Your task to perform on an android device: uninstall "Instagram" Image 0: 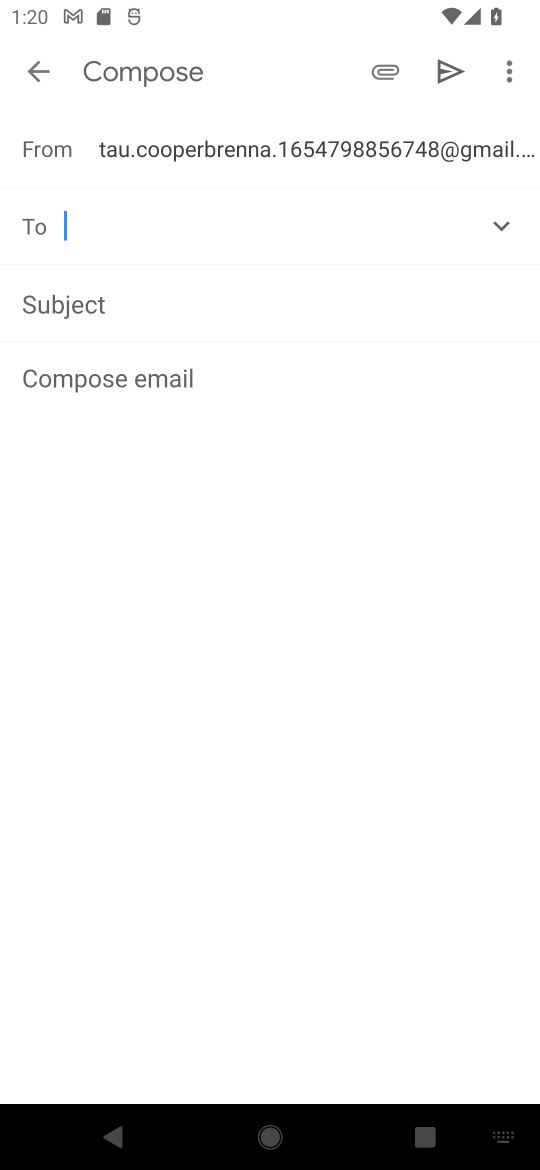
Step 0: press home button
Your task to perform on an android device: uninstall "Instagram" Image 1: 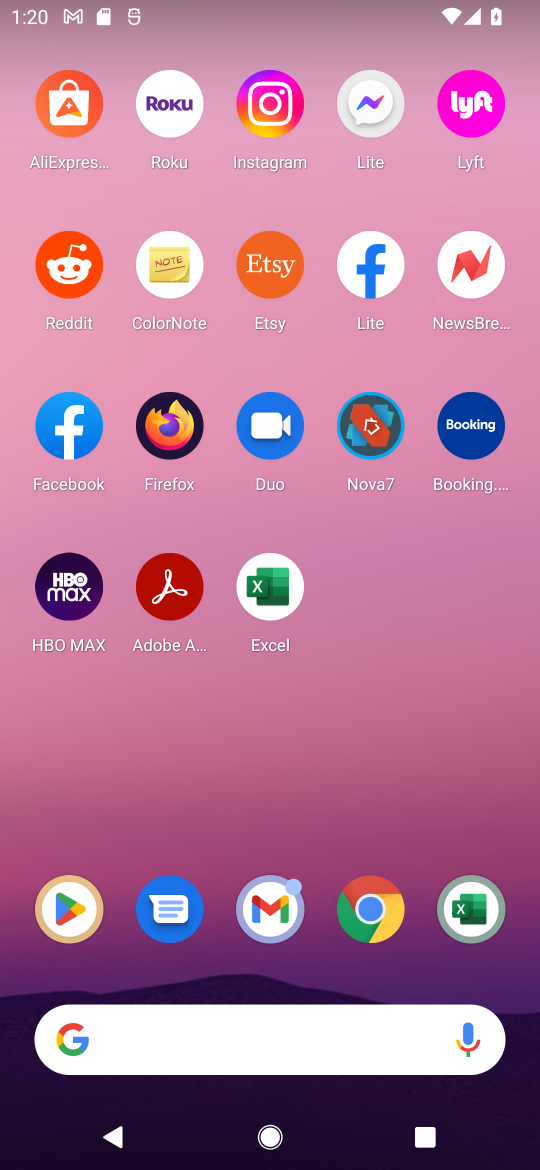
Step 1: click (59, 909)
Your task to perform on an android device: uninstall "Instagram" Image 2: 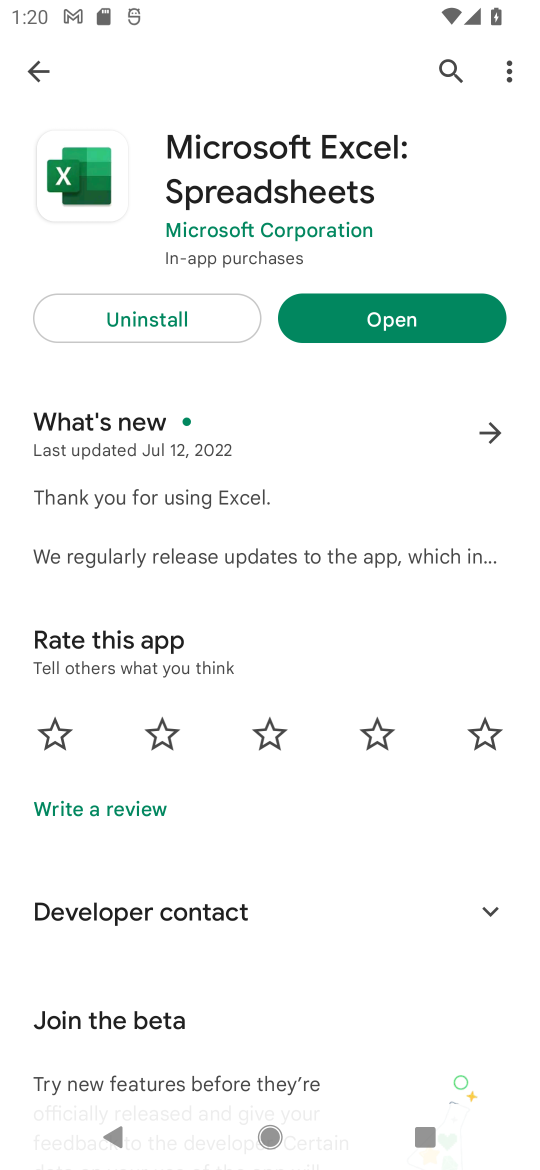
Step 2: click (454, 67)
Your task to perform on an android device: uninstall "Instagram" Image 3: 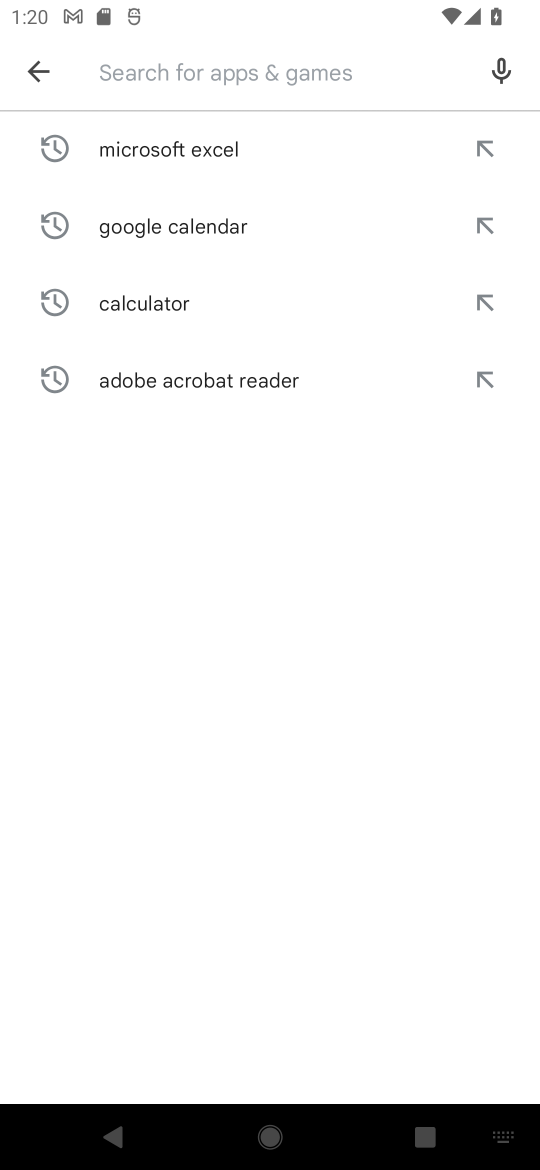
Step 3: type "Instagram"
Your task to perform on an android device: uninstall "Instagram" Image 4: 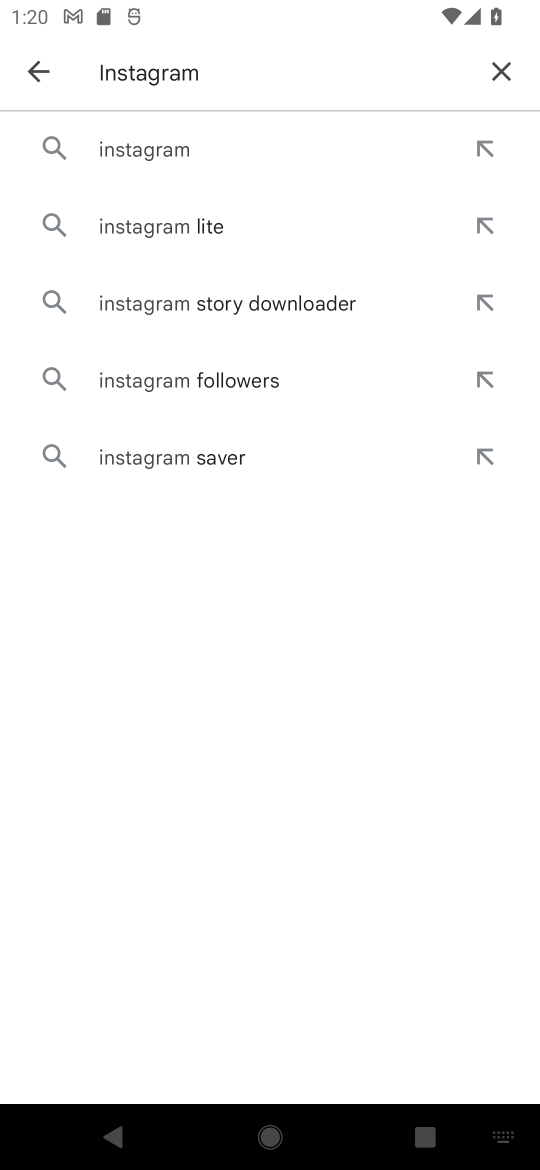
Step 4: click (134, 148)
Your task to perform on an android device: uninstall "Instagram" Image 5: 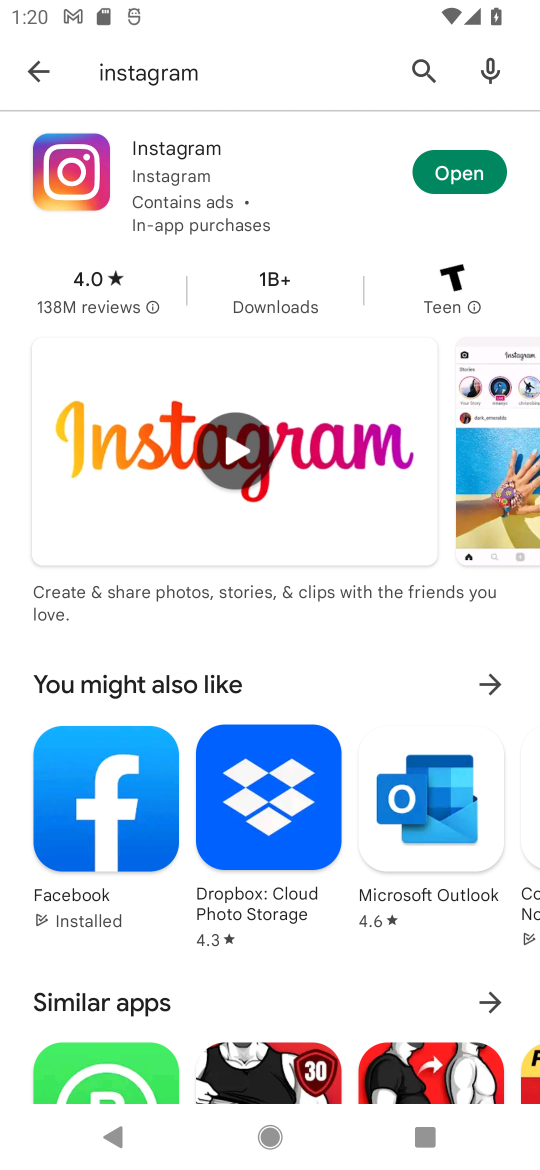
Step 5: click (173, 163)
Your task to perform on an android device: uninstall "Instagram" Image 6: 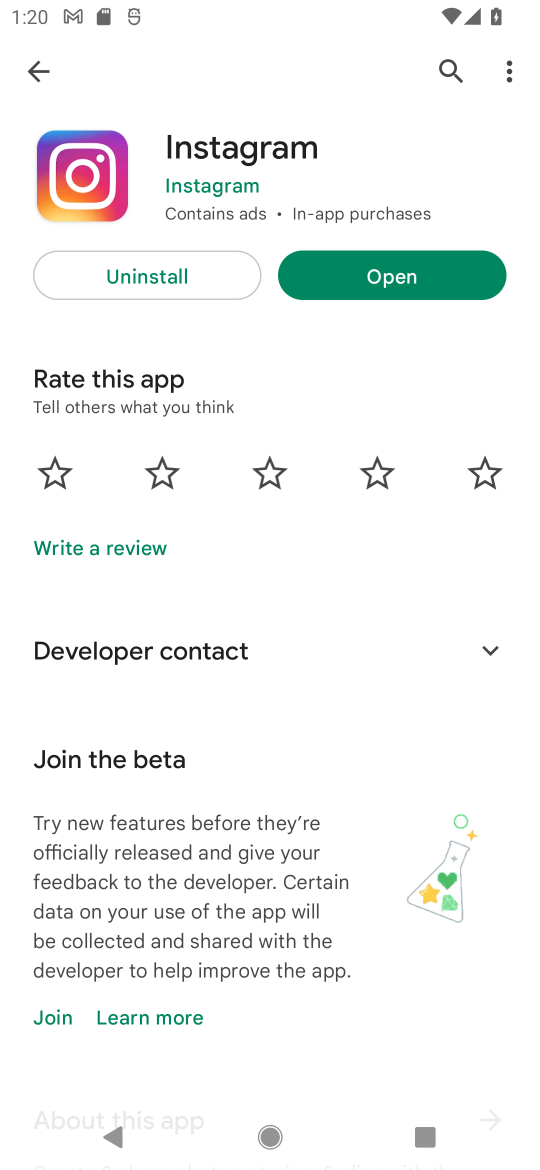
Step 6: click (145, 279)
Your task to perform on an android device: uninstall "Instagram" Image 7: 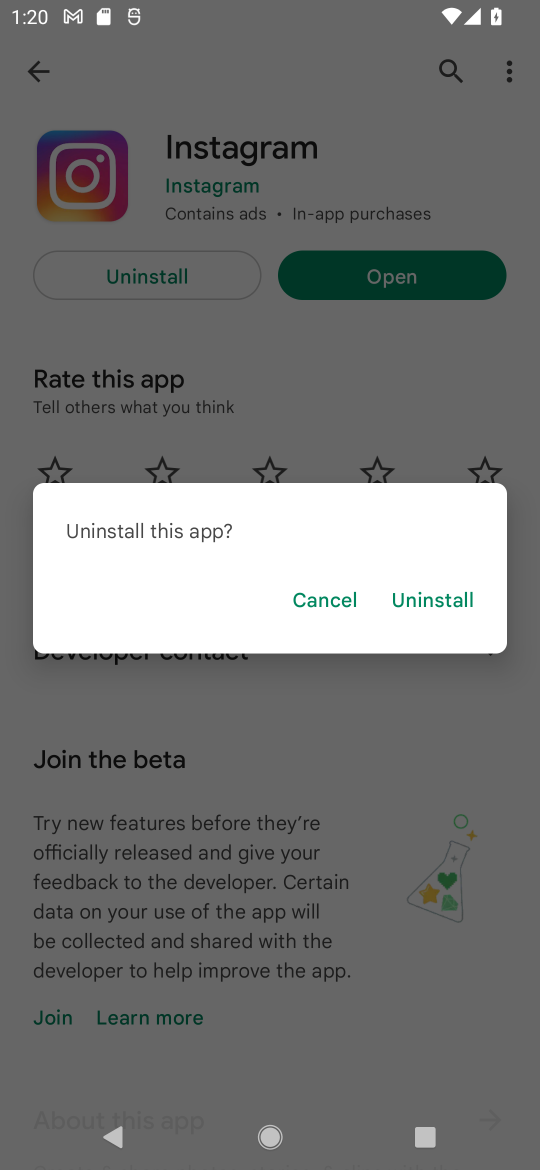
Step 7: click (455, 599)
Your task to perform on an android device: uninstall "Instagram" Image 8: 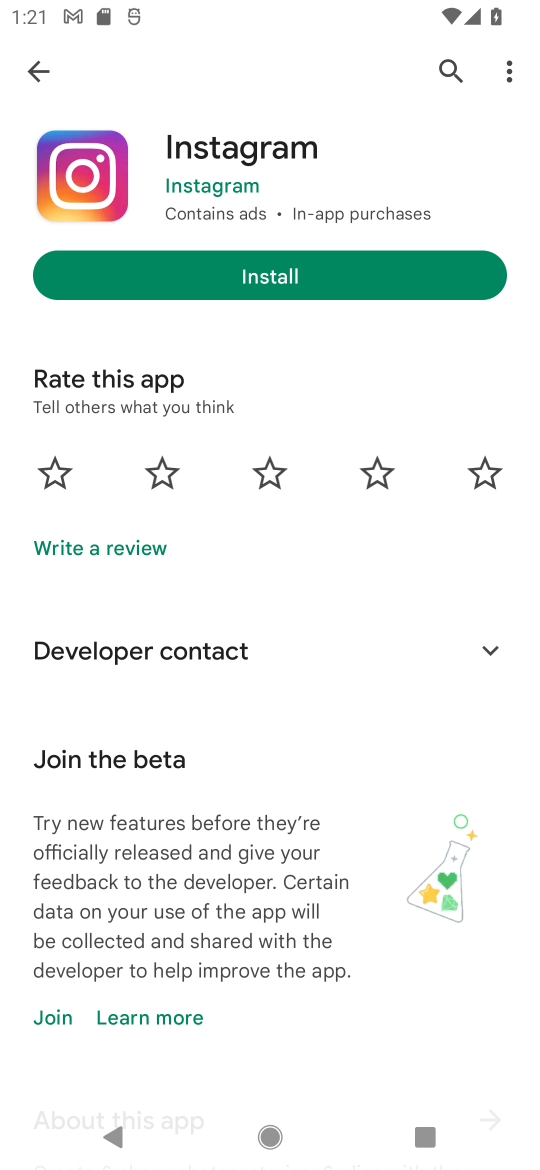
Step 8: task complete